Your task to perform on an android device: Go to location settings Image 0: 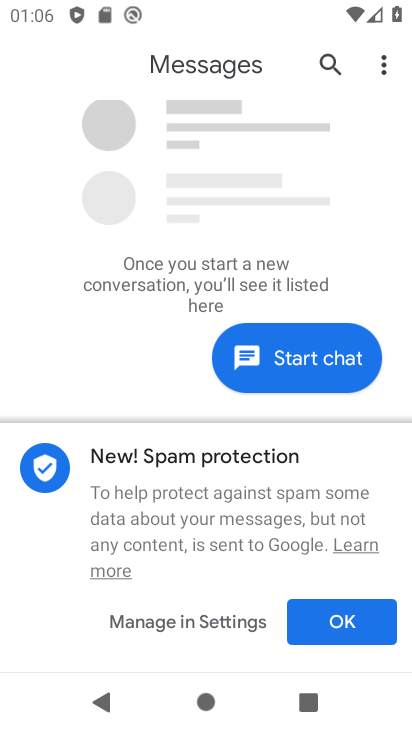
Step 0: press home button
Your task to perform on an android device: Go to location settings Image 1: 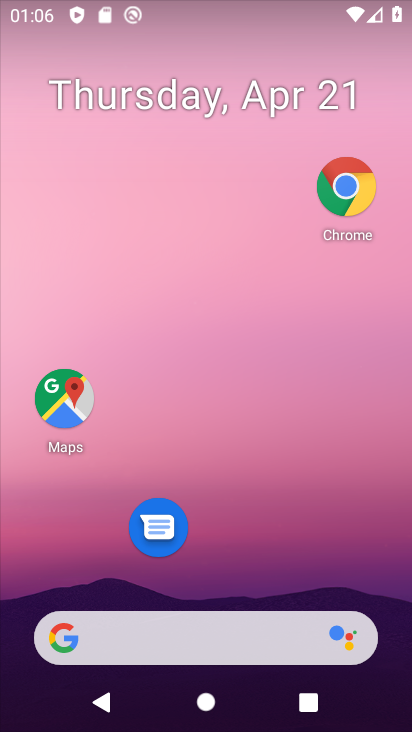
Step 1: drag from (224, 572) to (264, 93)
Your task to perform on an android device: Go to location settings Image 2: 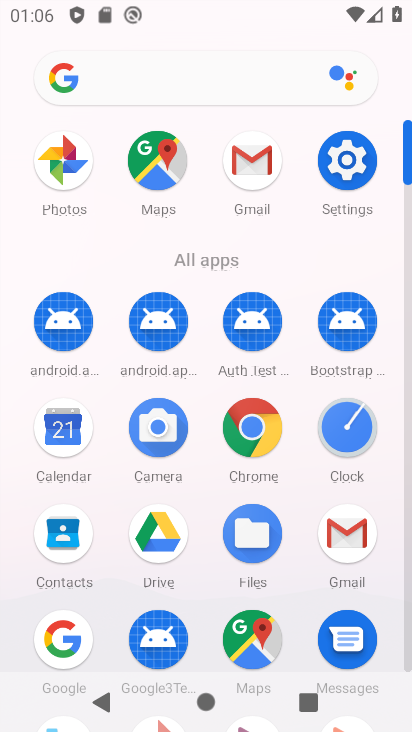
Step 2: click (340, 159)
Your task to perform on an android device: Go to location settings Image 3: 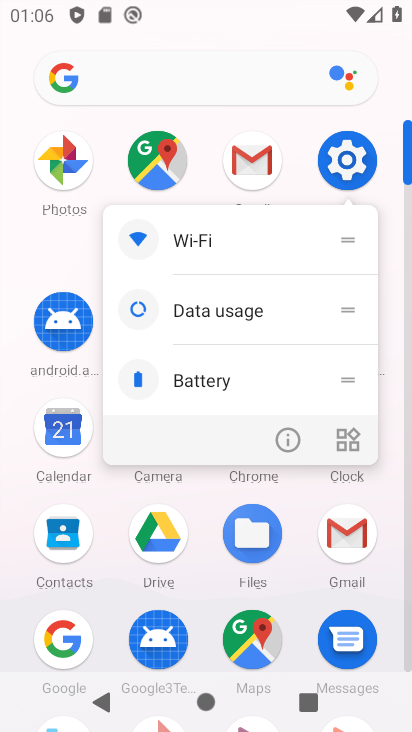
Step 3: click (274, 428)
Your task to perform on an android device: Go to location settings Image 4: 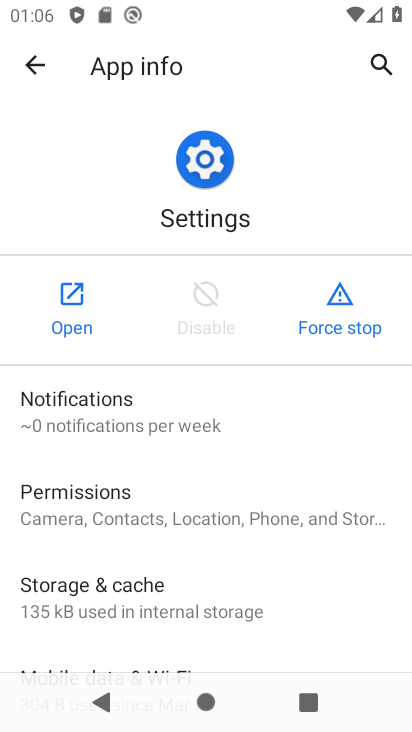
Step 4: click (79, 296)
Your task to perform on an android device: Go to location settings Image 5: 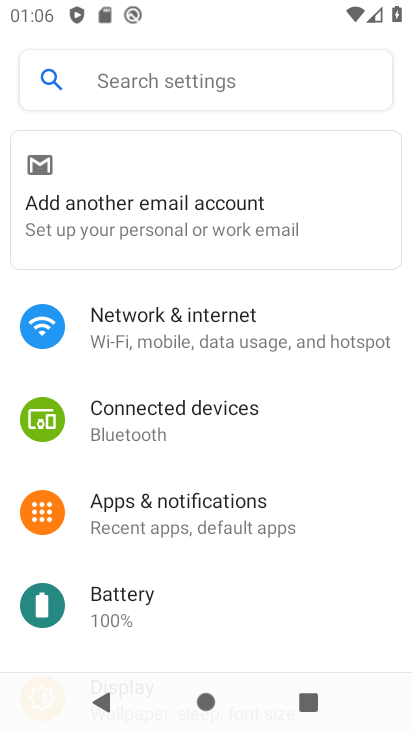
Step 5: drag from (255, 517) to (267, 282)
Your task to perform on an android device: Go to location settings Image 6: 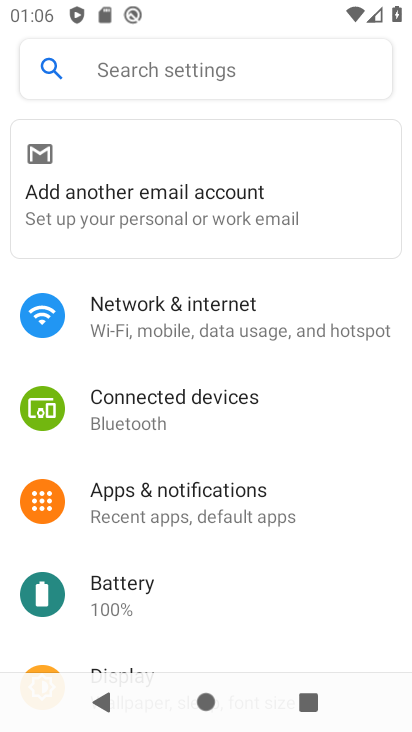
Step 6: drag from (214, 635) to (212, 282)
Your task to perform on an android device: Go to location settings Image 7: 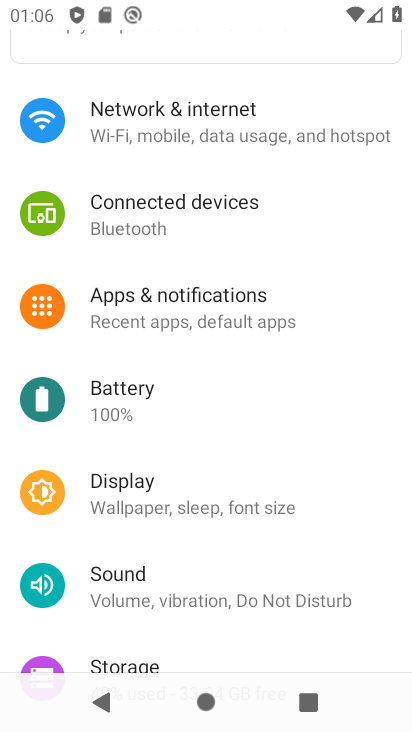
Step 7: drag from (218, 594) to (232, 323)
Your task to perform on an android device: Go to location settings Image 8: 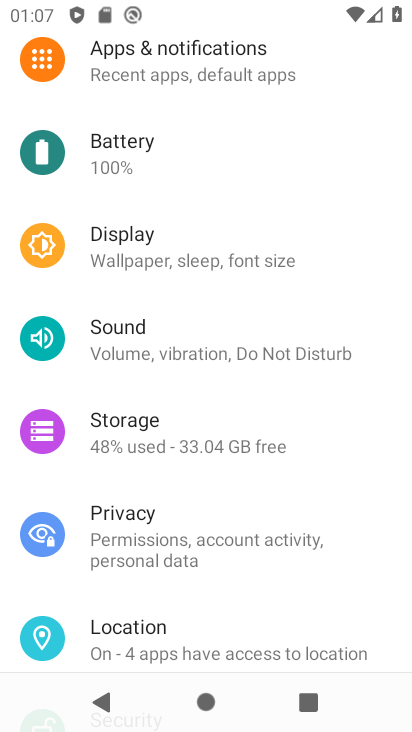
Step 8: drag from (226, 609) to (203, 266)
Your task to perform on an android device: Go to location settings Image 9: 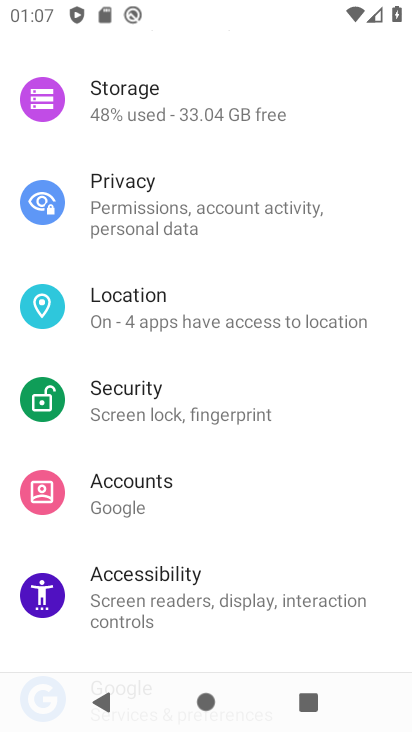
Step 9: click (158, 314)
Your task to perform on an android device: Go to location settings Image 10: 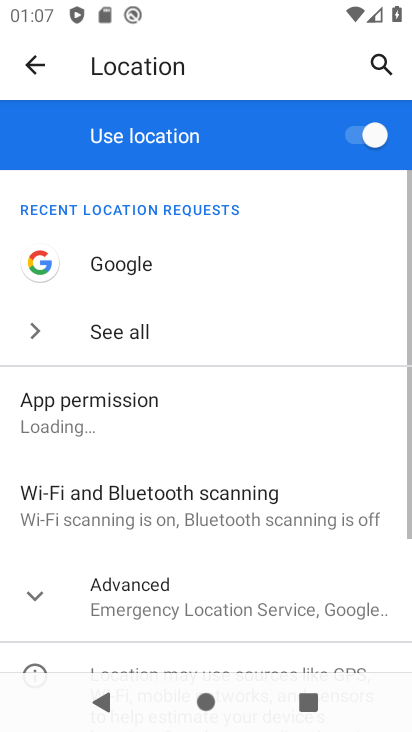
Step 10: drag from (181, 525) to (169, 215)
Your task to perform on an android device: Go to location settings Image 11: 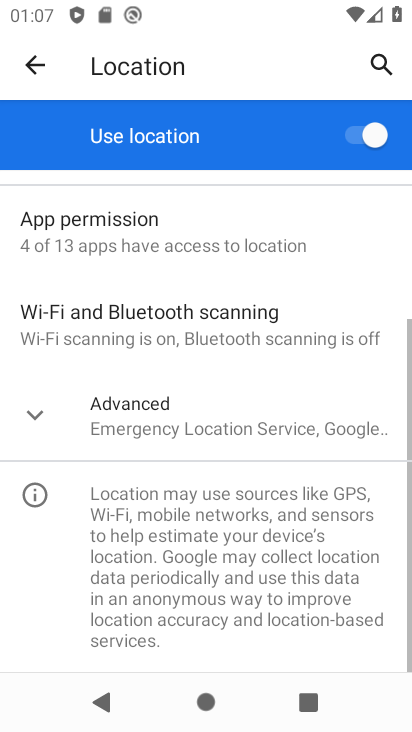
Step 11: click (178, 420)
Your task to perform on an android device: Go to location settings Image 12: 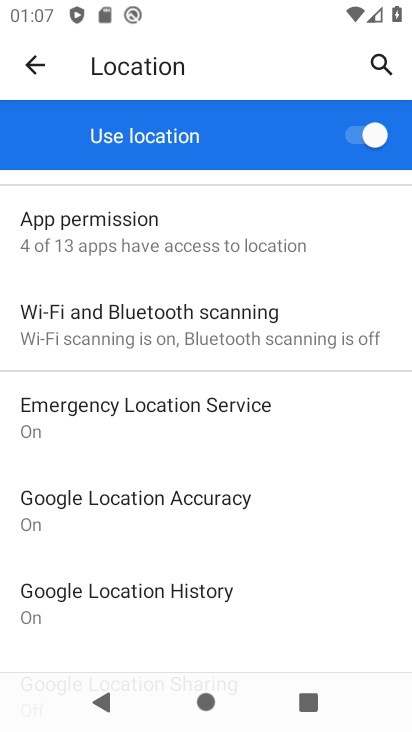
Step 12: task complete